Your task to perform on an android device: When is my next appointment? Image 0: 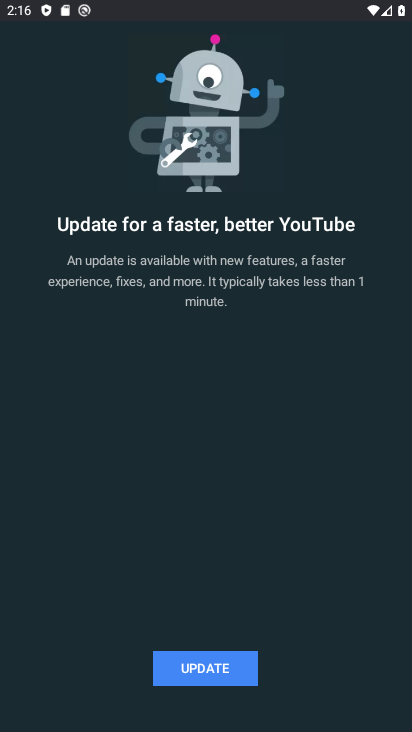
Step 0: press home button
Your task to perform on an android device: When is my next appointment? Image 1: 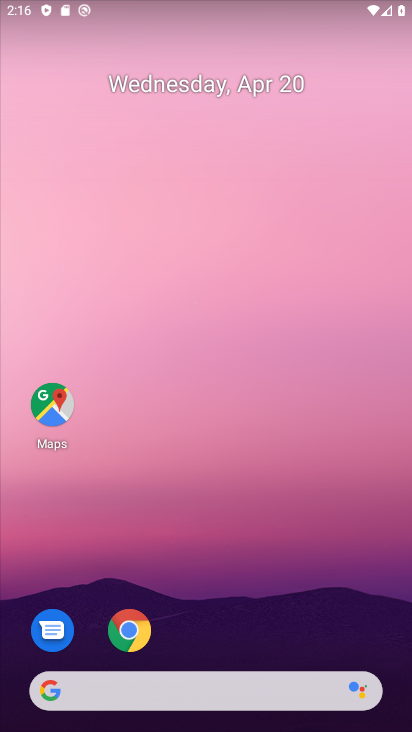
Step 1: drag from (224, 621) to (116, 110)
Your task to perform on an android device: When is my next appointment? Image 2: 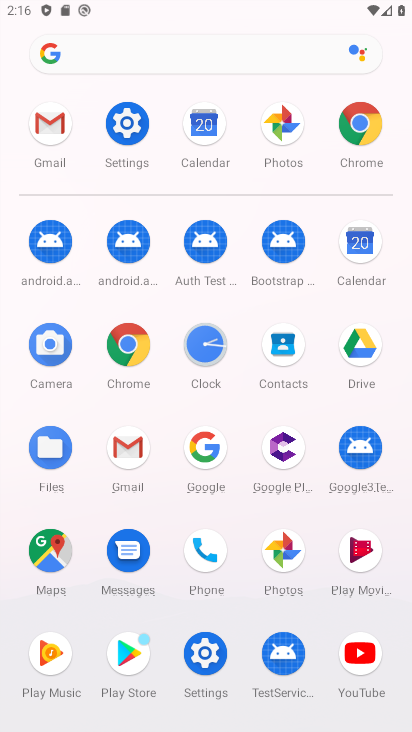
Step 2: click (370, 237)
Your task to perform on an android device: When is my next appointment? Image 3: 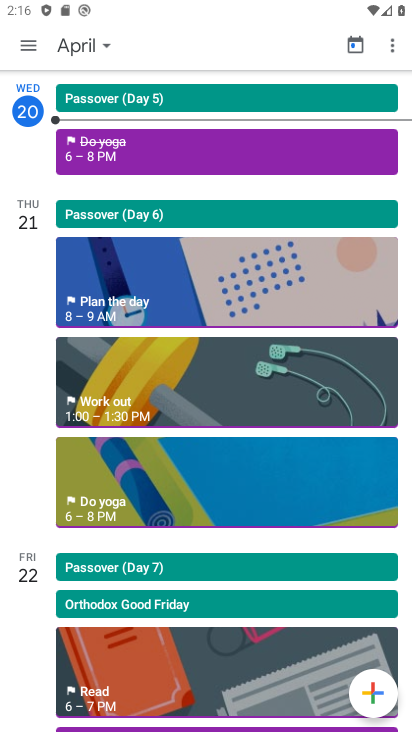
Step 3: click (122, 157)
Your task to perform on an android device: When is my next appointment? Image 4: 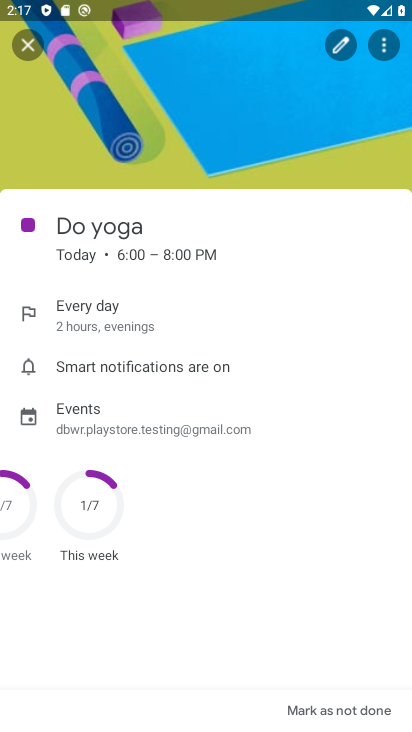
Step 4: task complete